Your task to perform on an android device: allow notifications from all sites in the chrome app Image 0: 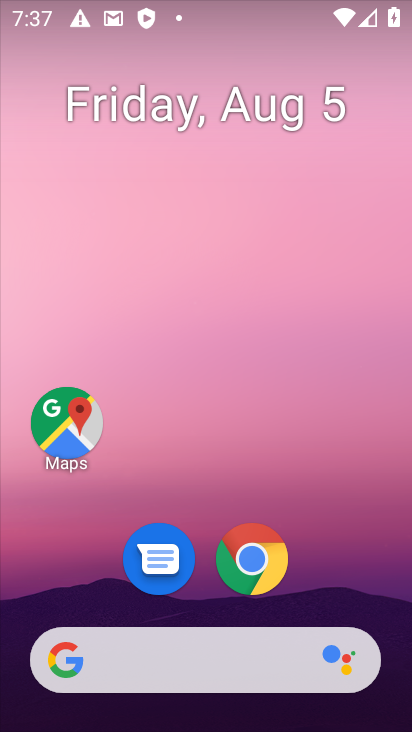
Step 0: click (255, 567)
Your task to perform on an android device: allow notifications from all sites in the chrome app Image 1: 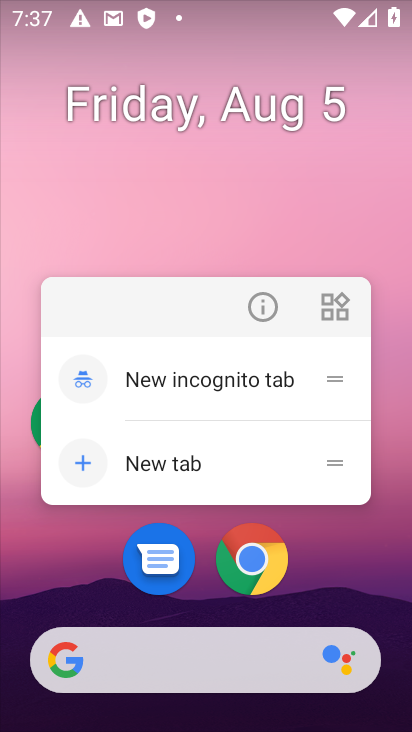
Step 1: click (253, 568)
Your task to perform on an android device: allow notifications from all sites in the chrome app Image 2: 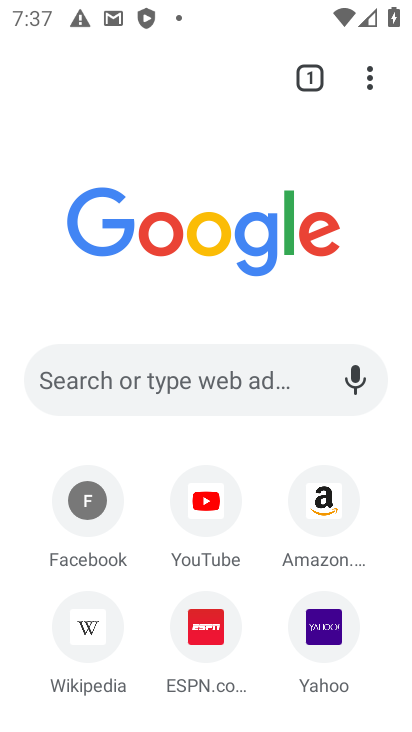
Step 2: click (362, 78)
Your task to perform on an android device: allow notifications from all sites in the chrome app Image 3: 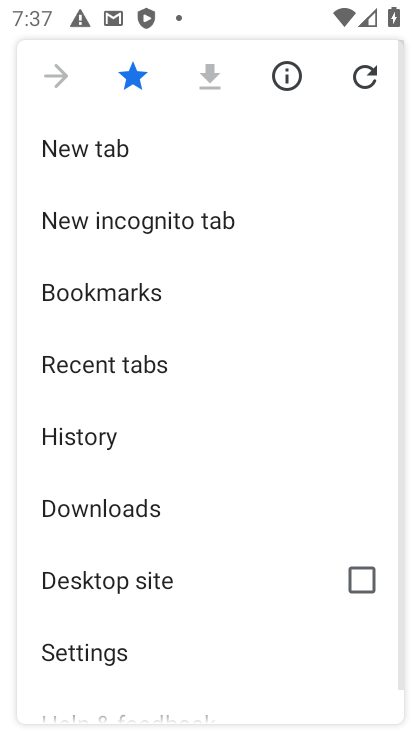
Step 3: drag from (103, 612) to (127, 377)
Your task to perform on an android device: allow notifications from all sites in the chrome app Image 4: 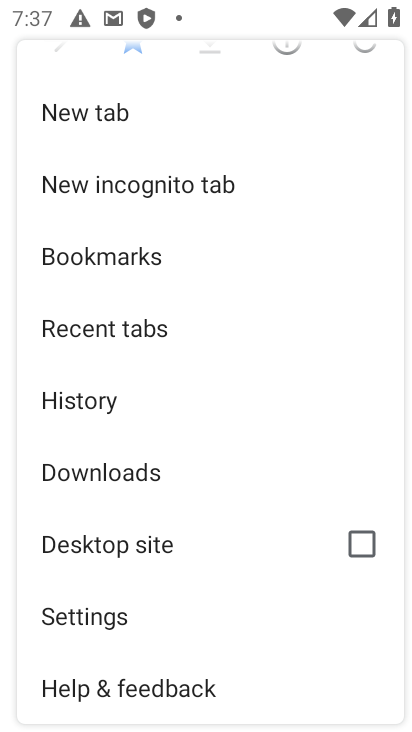
Step 4: click (120, 615)
Your task to perform on an android device: allow notifications from all sites in the chrome app Image 5: 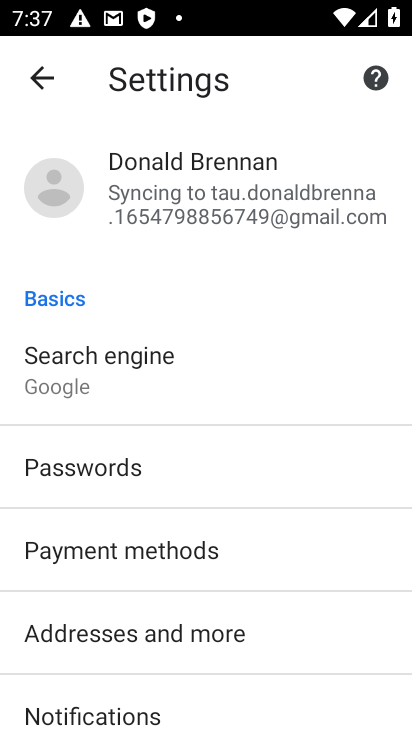
Step 5: drag from (104, 633) to (142, 297)
Your task to perform on an android device: allow notifications from all sites in the chrome app Image 6: 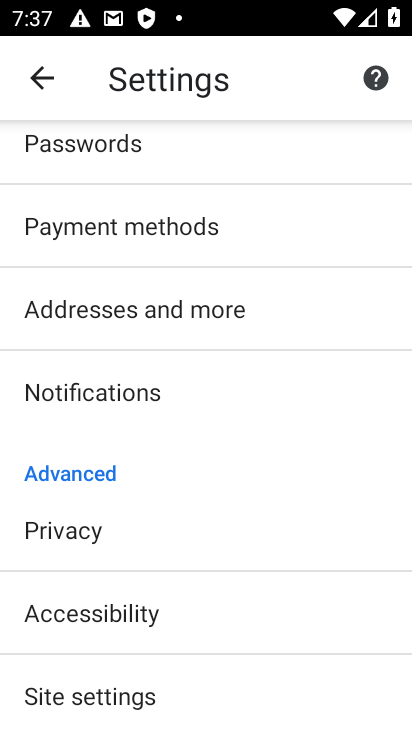
Step 6: click (106, 400)
Your task to perform on an android device: allow notifications from all sites in the chrome app Image 7: 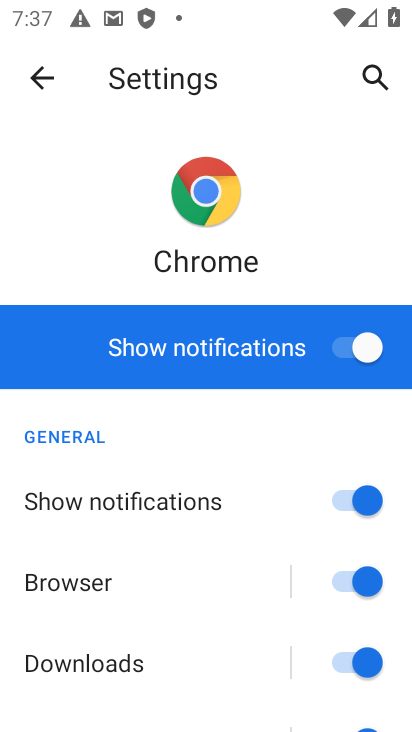
Step 7: task complete